Your task to perform on an android device: Open Amazon Image 0: 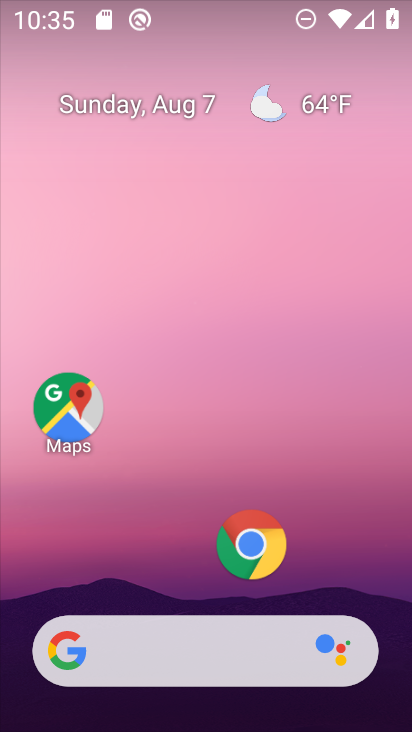
Step 0: drag from (167, 622) to (334, 10)
Your task to perform on an android device: Open Amazon Image 1: 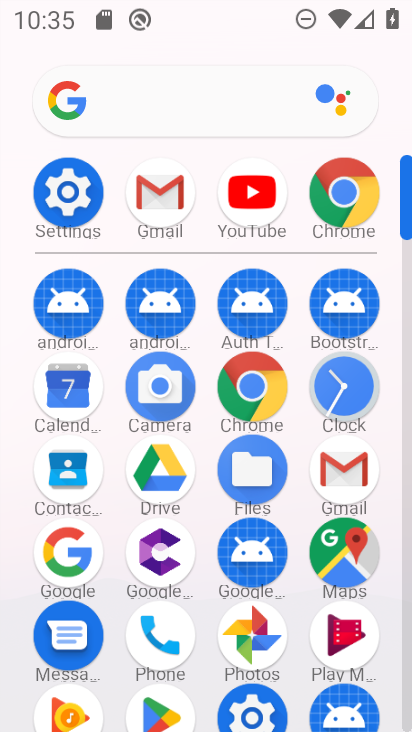
Step 1: click (241, 394)
Your task to perform on an android device: Open Amazon Image 2: 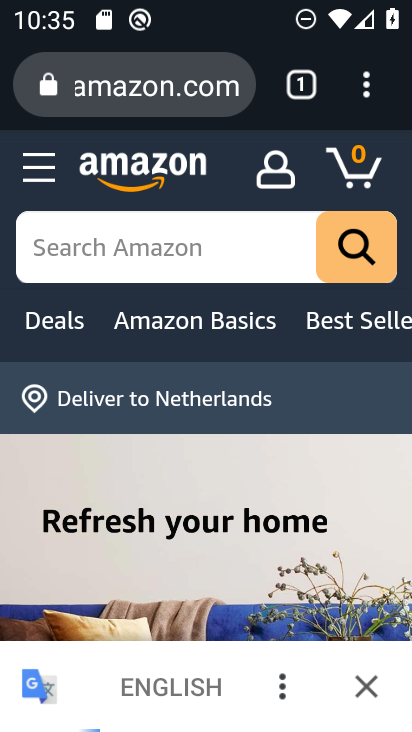
Step 2: task complete